Your task to perform on an android device: check battery use Image 0: 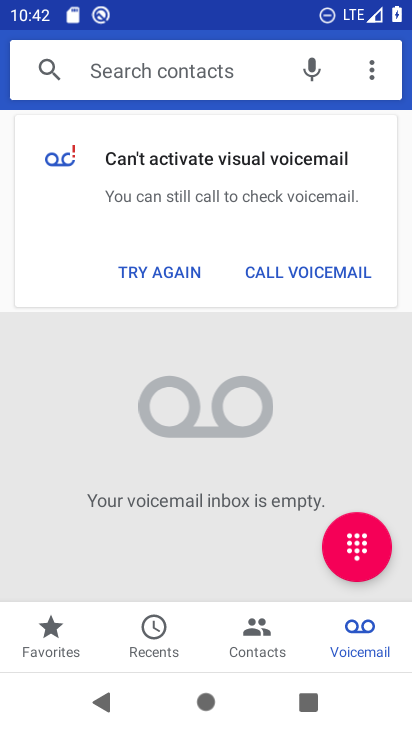
Step 0: press home button
Your task to perform on an android device: check battery use Image 1: 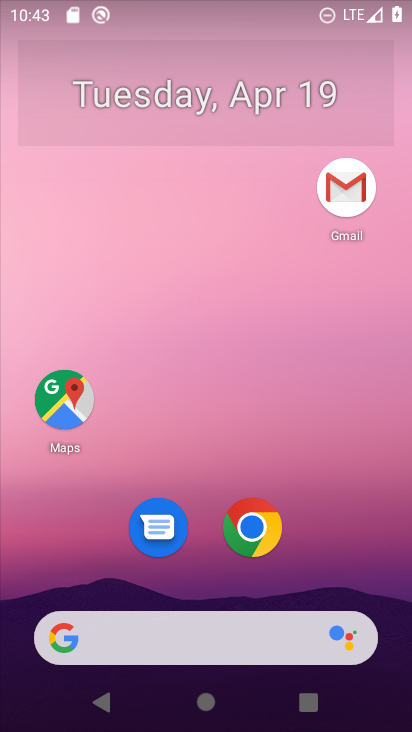
Step 1: drag from (367, 538) to (363, 124)
Your task to perform on an android device: check battery use Image 2: 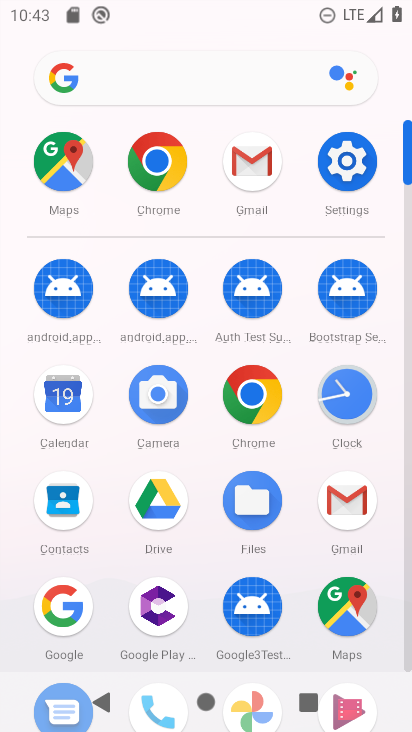
Step 2: drag from (292, 562) to (304, 320)
Your task to perform on an android device: check battery use Image 3: 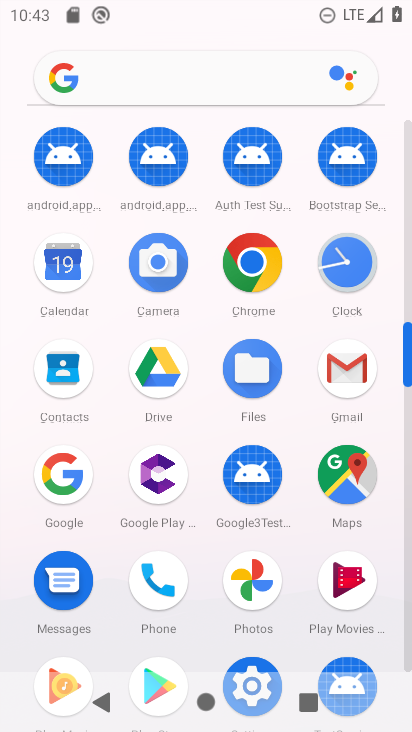
Step 3: click (251, 663)
Your task to perform on an android device: check battery use Image 4: 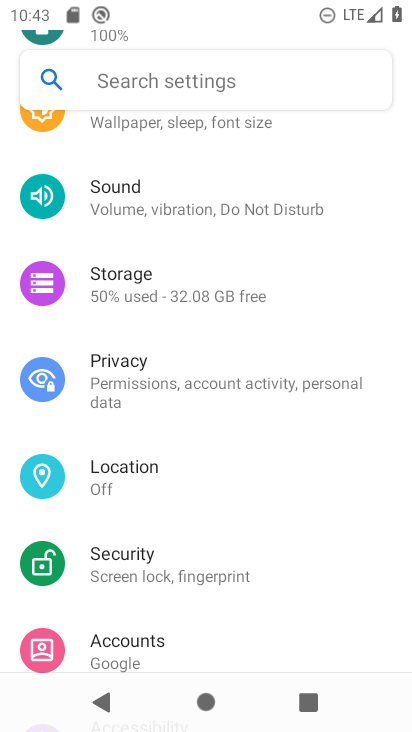
Step 4: drag from (318, 543) to (318, 228)
Your task to perform on an android device: check battery use Image 5: 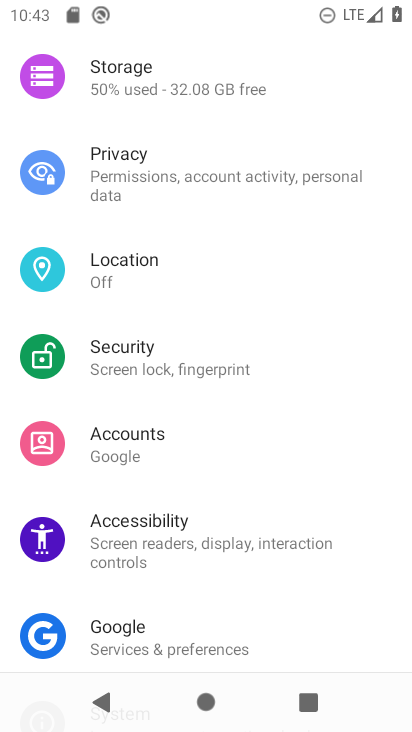
Step 5: drag from (310, 277) to (317, 568)
Your task to perform on an android device: check battery use Image 6: 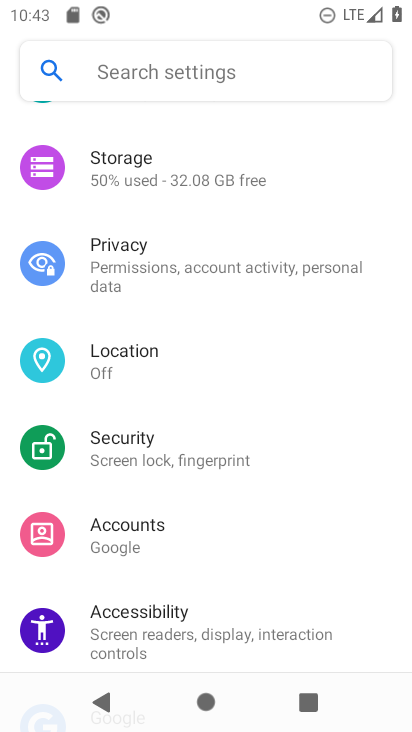
Step 6: drag from (314, 179) to (355, 584)
Your task to perform on an android device: check battery use Image 7: 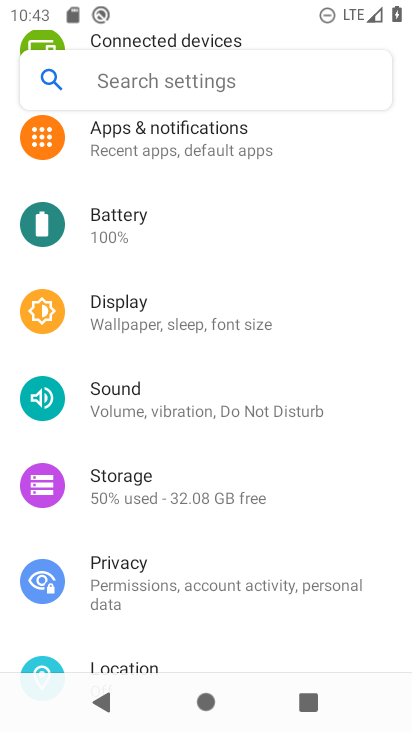
Step 7: click (150, 216)
Your task to perform on an android device: check battery use Image 8: 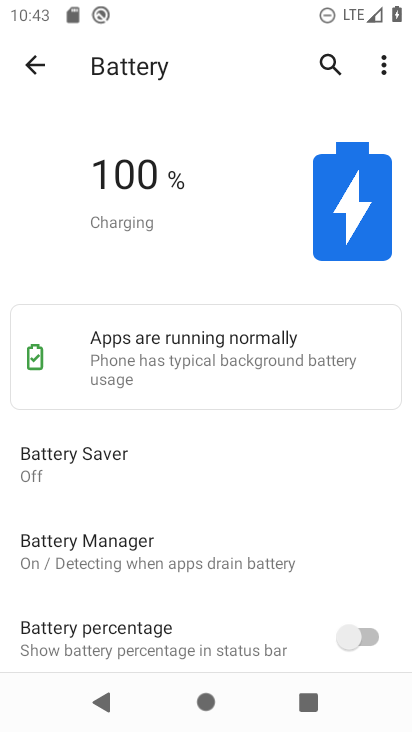
Step 8: task complete